Your task to perform on an android device: clear history in the chrome app Image 0: 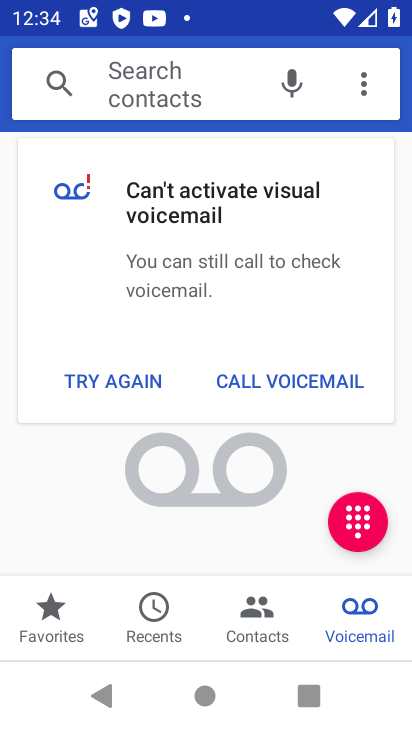
Step 0: press home button
Your task to perform on an android device: clear history in the chrome app Image 1: 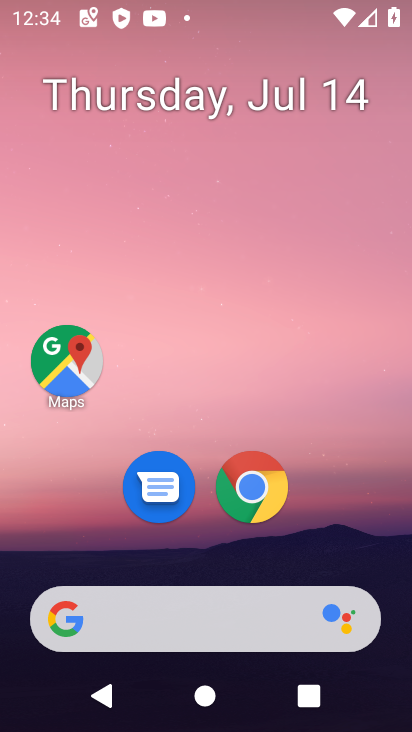
Step 1: drag from (206, 588) to (210, 109)
Your task to perform on an android device: clear history in the chrome app Image 2: 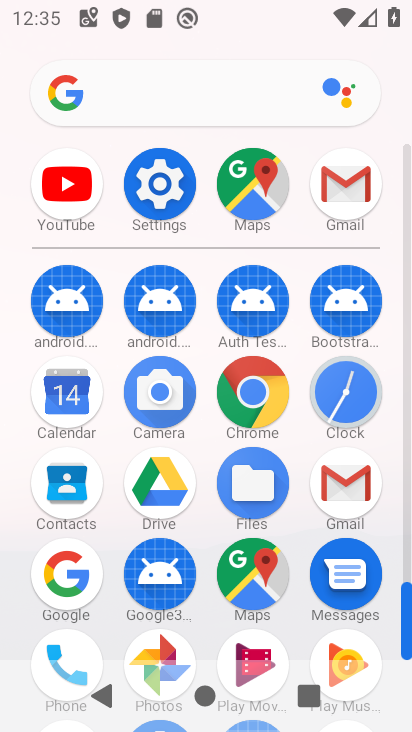
Step 2: click (253, 388)
Your task to perform on an android device: clear history in the chrome app Image 3: 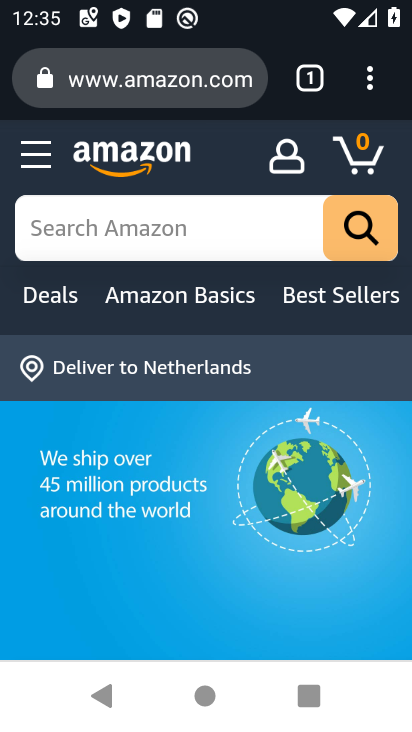
Step 3: click (372, 101)
Your task to perform on an android device: clear history in the chrome app Image 4: 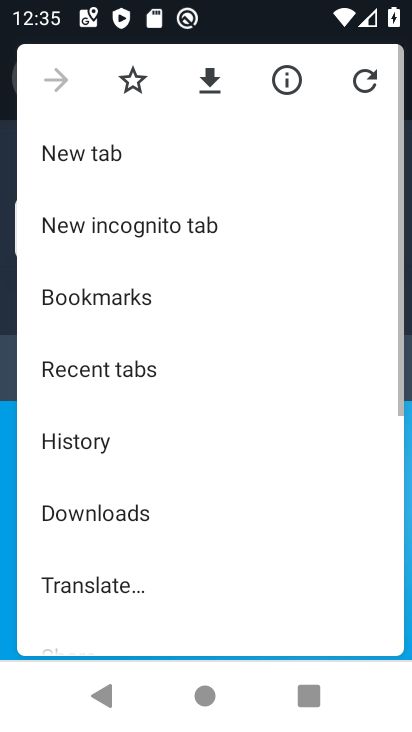
Step 4: drag from (205, 467) to (193, 280)
Your task to perform on an android device: clear history in the chrome app Image 5: 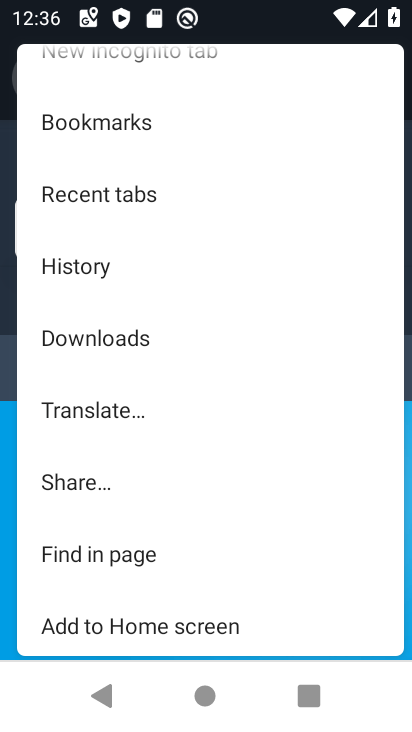
Step 5: click (77, 271)
Your task to perform on an android device: clear history in the chrome app Image 6: 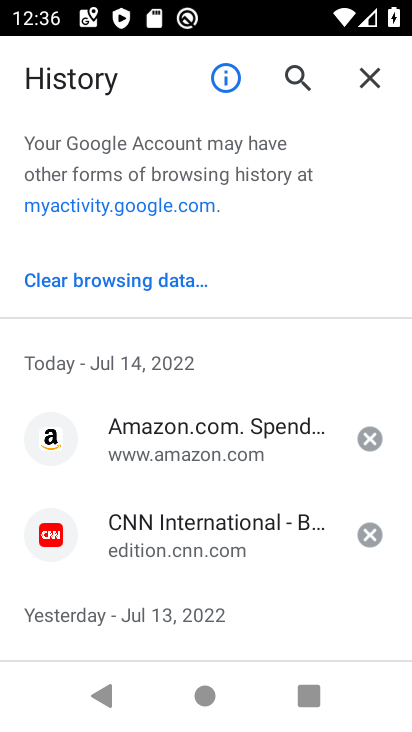
Step 6: click (94, 272)
Your task to perform on an android device: clear history in the chrome app Image 7: 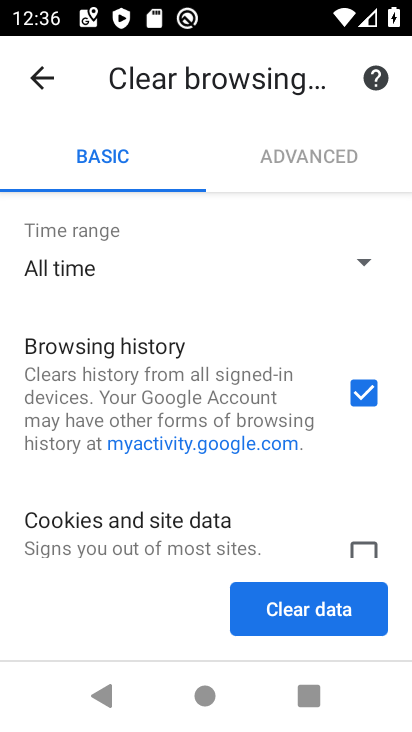
Step 7: click (320, 624)
Your task to perform on an android device: clear history in the chrome app Image 8: 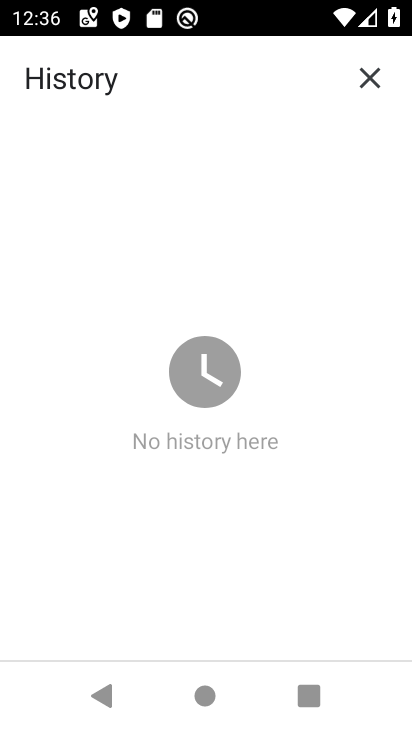
Step 8: task complete